Your task to perform on an android device: Go to wifi settings Image 0: 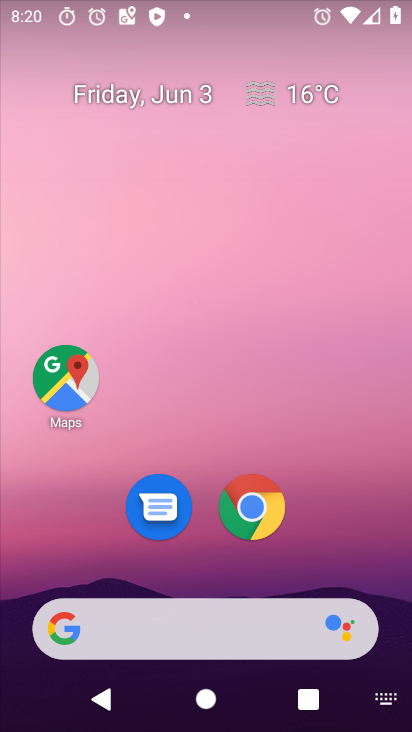
Step 0: drag from (334, 502) to (250, 70)
Your task to perform on an android device: Go to wifi settings Image 1: 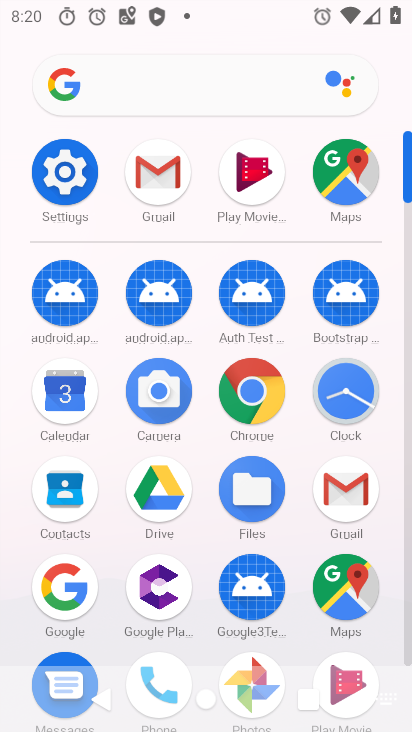
Step 1: click (79, 197)
Your task to perform on an android device: Go to wifi settings Image 2: 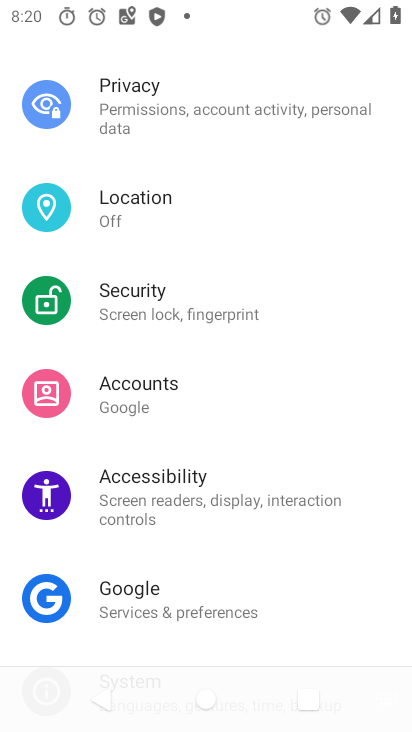
Step 2: drag from (247, 128) to (242, 638)
Your task to perform on an android device: Go to wifi settings Image 3: 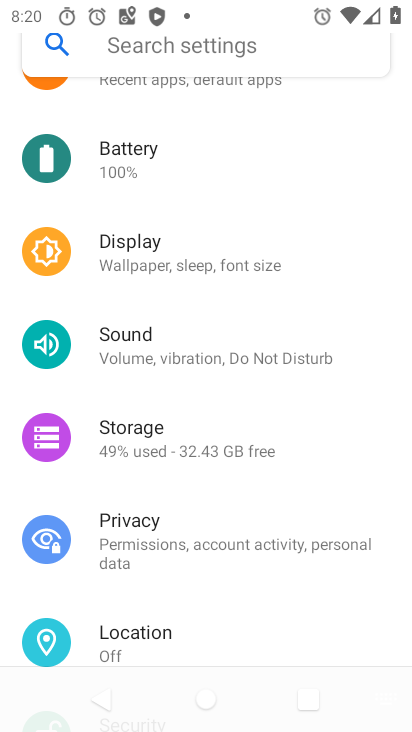
Step 3: drag from (229, 141) to (220, 655)
Your task to perform on an android device: Go to wifi settings Image 4: 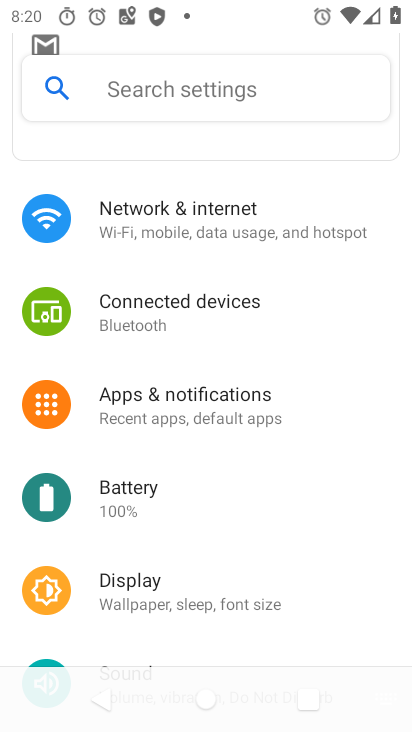
Step 4: click (193, 209)
Your task to perform on an android device: Go to wifi settings Image 5: 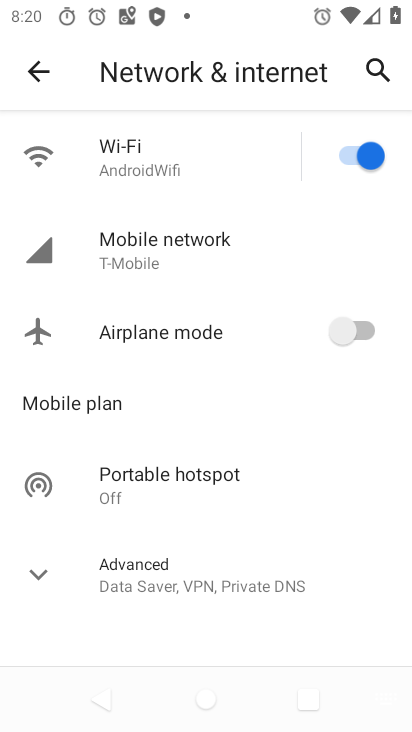
Step 5: click (227, 151)
Your task to perform on an android device: Go to wifi settings Image 6: 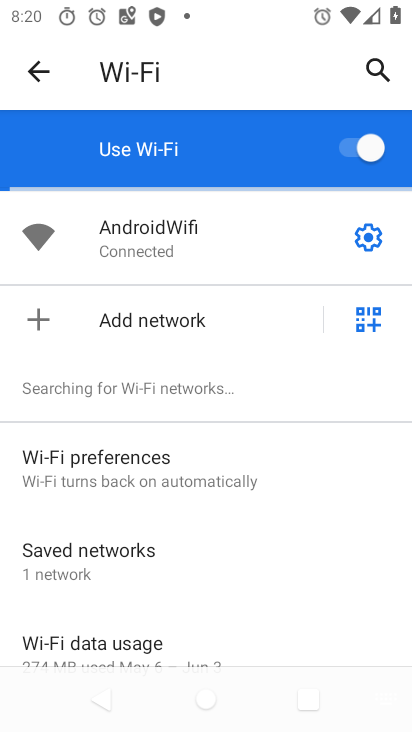
Step 6: task complete